Your task to perform on an android device: When is my next meeting? Image 0: 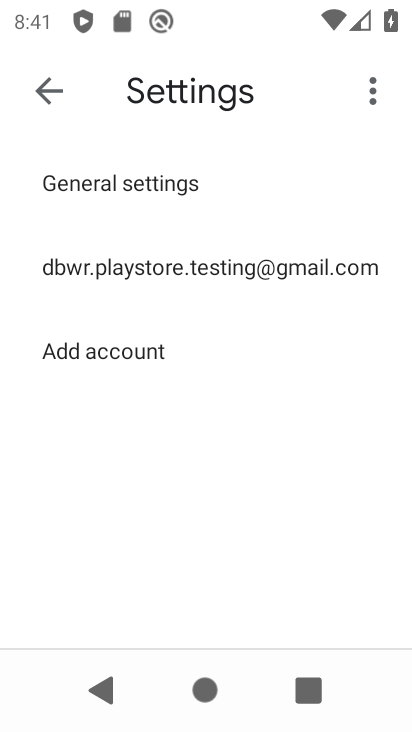
Step 0: press home button
Your task to perform on an android device: When is my next meeting? Image 1: 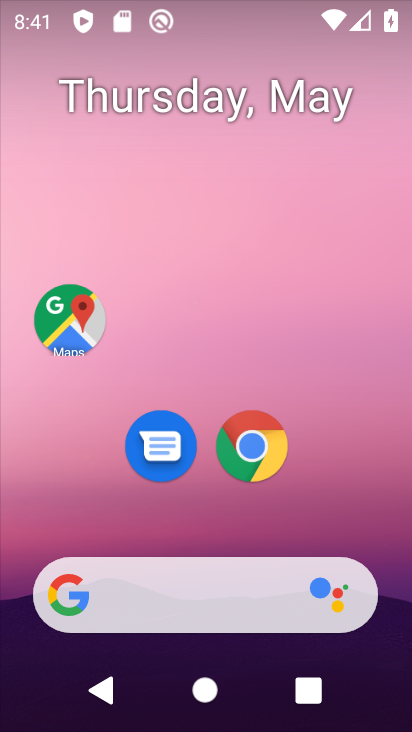
Step 1: drag from (399, 615) to (295, 76)
Your task to perform on an android device: When is my next meeting? Image 2: 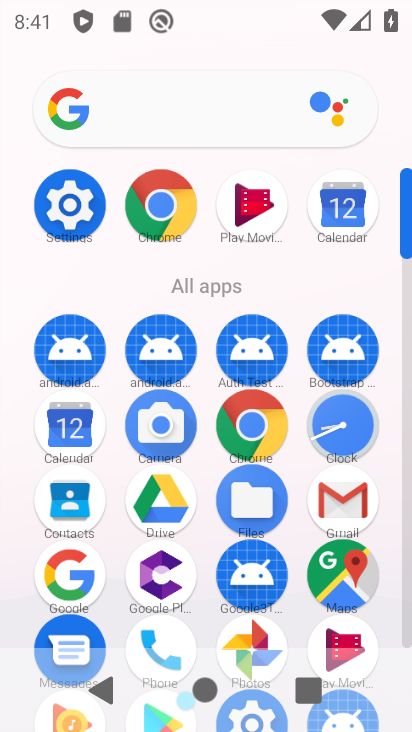
Step 2: click (407, 634)
Your task to perform on an android device: When is my next meeting? Image 3: 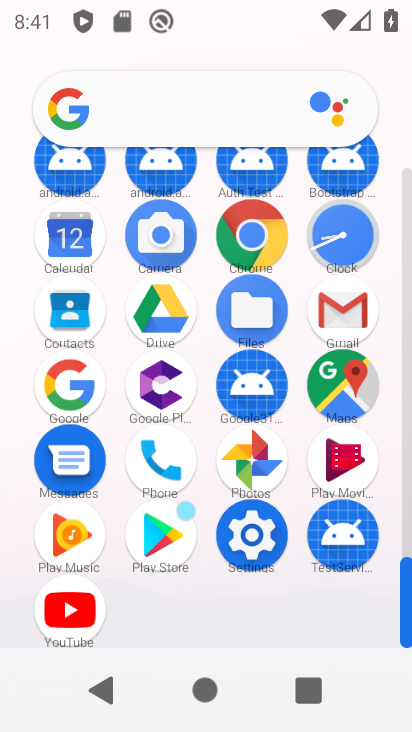
Step 3: click (68, 233)
Your task to perform on an android device: When is my next meeting? Image 4: 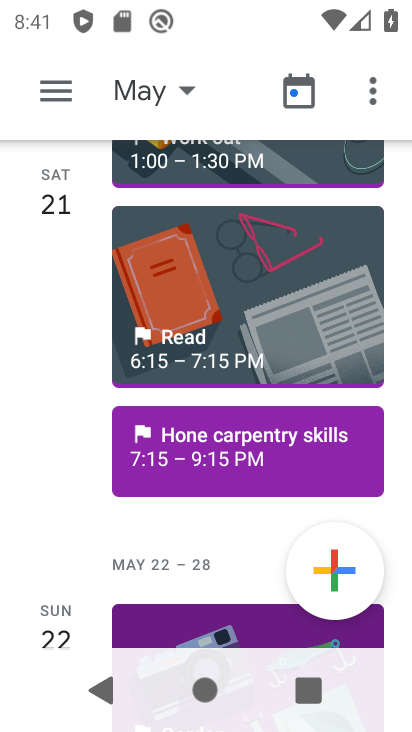
Step 4: task complete